Your task to perform on an android device: turn pop-ups off in chrome Image 0: 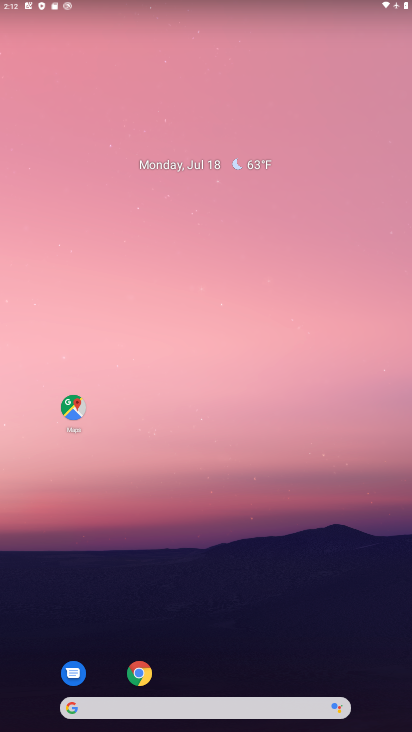
Step 0: drag from (241, 644) to (291, 272)
Your task to perform on an android device: turn pop-ups off in chrome Image 1: 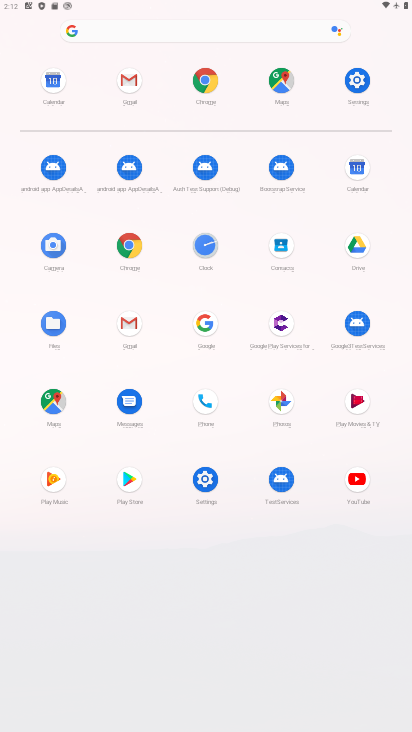
Step 1: click (208, 78)
Your task to perform on an android device: turn pop-ups off in chrome Image 2: 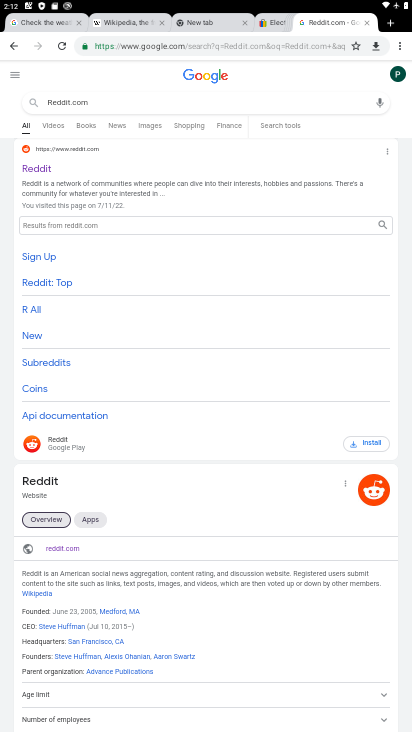
Step 2: click (404, 38)
Your task to perform on an android device: turn pop-ups off in chrome Image 3: 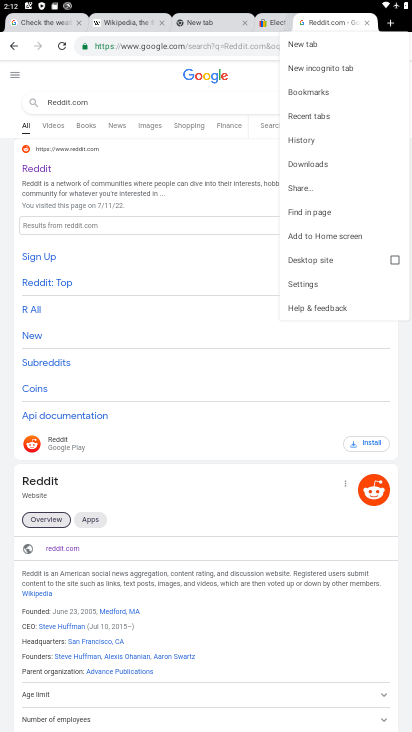
Step 3: click (310, 277)
Your task to perform on an android device: turn pop-ups off in chrome Image 4: 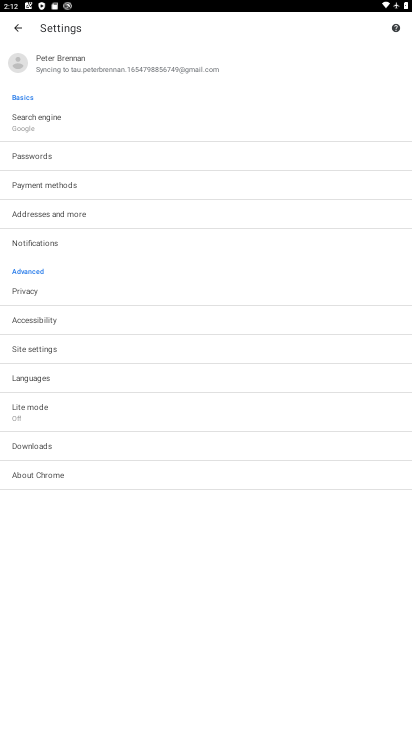
Step 4: click (49, 347)
Your task to perform on an android device: turn pop-ups off in chrome Image 5: 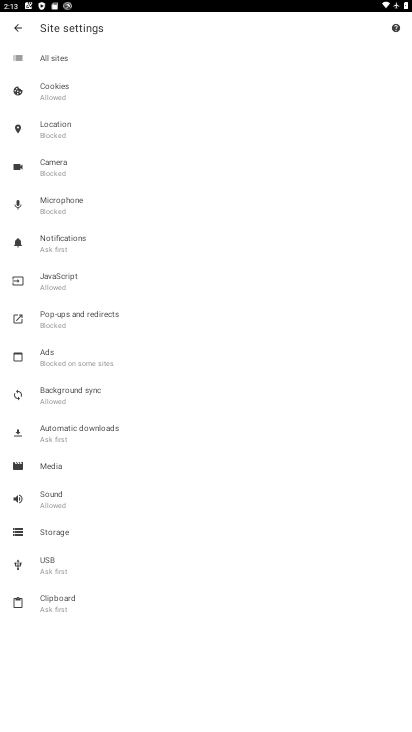
Step 5: click (93, 316)
Your task to perform on an android device: turn pop-ups off in chrome Image 6: 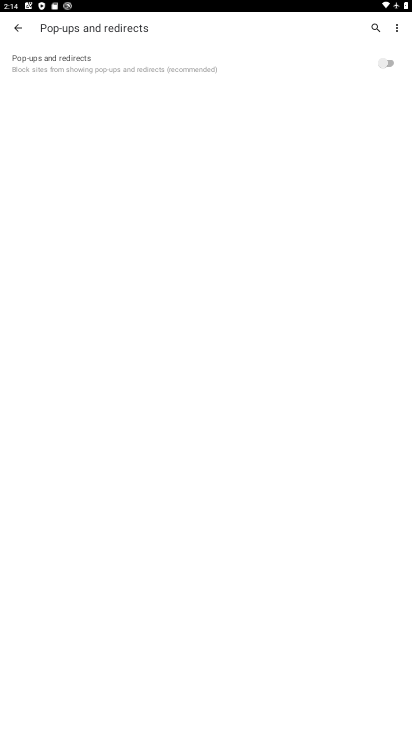
Step 6: task complete